Your task to perform on an android device: What's the weather going to be this weekend? Image 0: 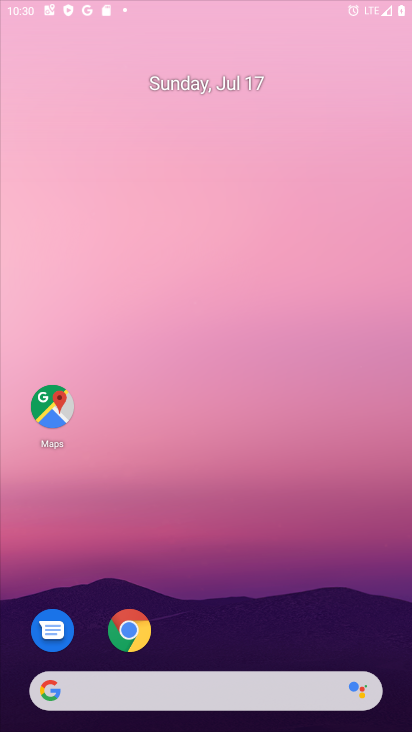
Step 0: press home button
Your task to perform on an android device: What's the weather going to be this weekend? Image 1: 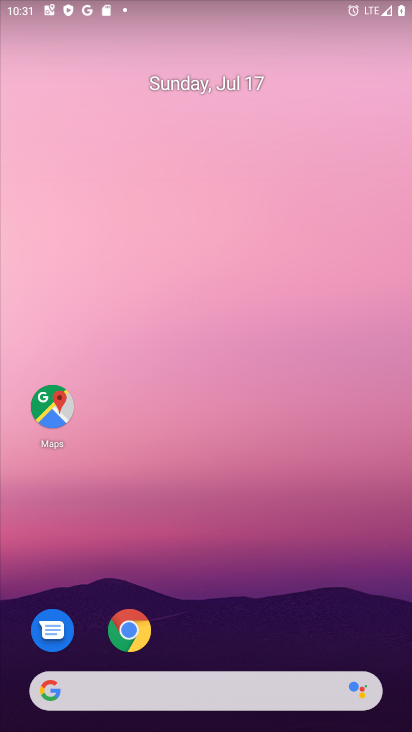
Step 1: drag from (50, 272) to (407, 291)
Your task to perform on an android device: What's the weather going to be this weekend? Image 2: 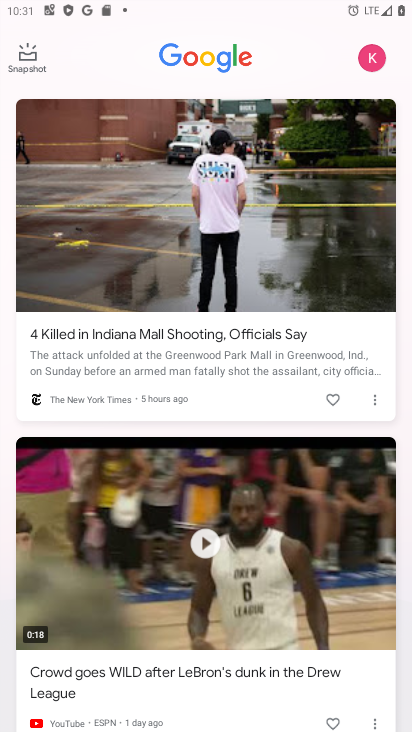
Step 2: press home button
Your task to perform on an android device: What's the weather going to be this weekend? Image 3: 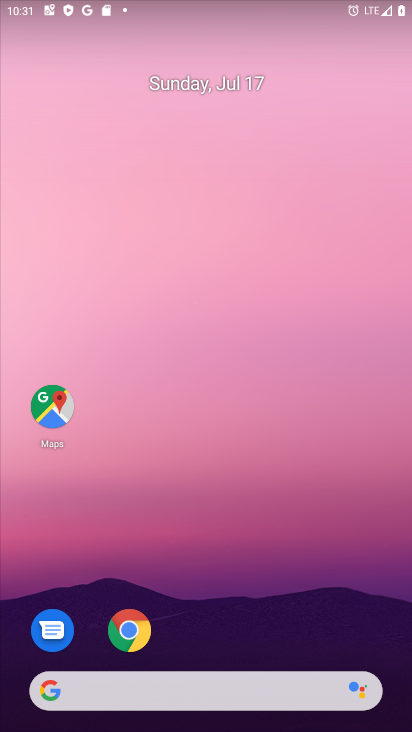
Step 3: click (144, 697)
Your task to perform on an android device: What's the weather going to be this weekend? Image 4: 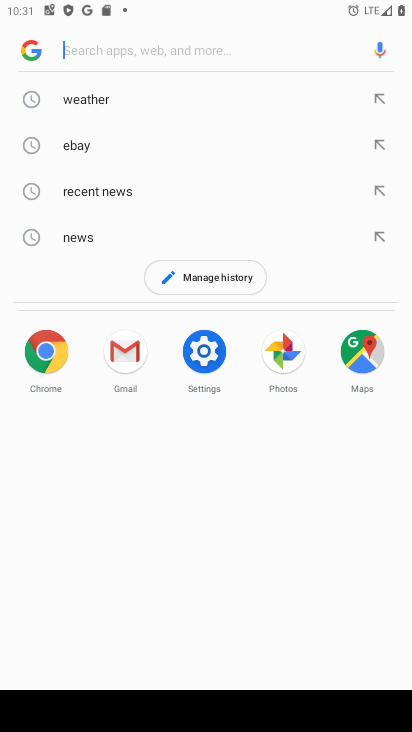
Step 4: click (96, 88)
Your task to perform on an android device: What's the weather going to be this weekend? Image 5: 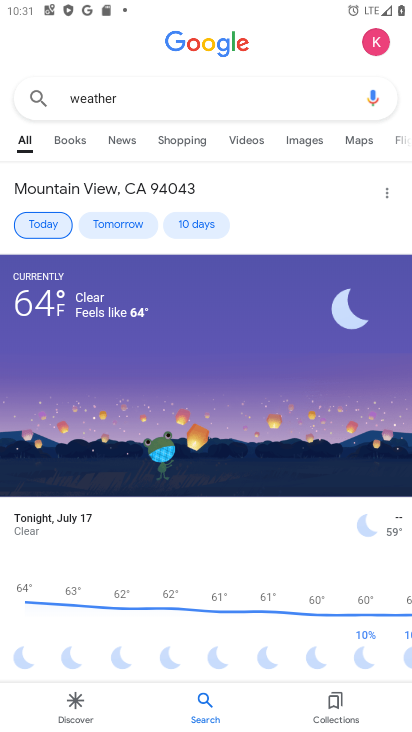
Step 5: click (190, 227)
Your task to perform on an android device: What's the weather going to be this weekend? Image 6: 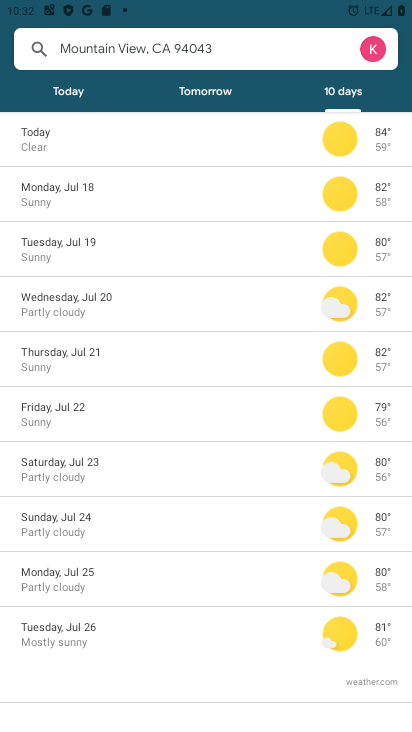
Step 6: click (77, 471)
Your task to perform on an android device: What's the weather going to be this weekend? Image 7: 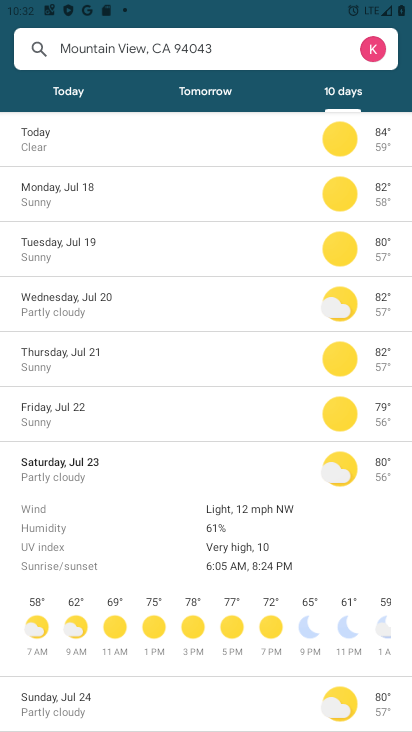
Step 7: task complete